Your task to perform on an android device: Open location settings Image 0: 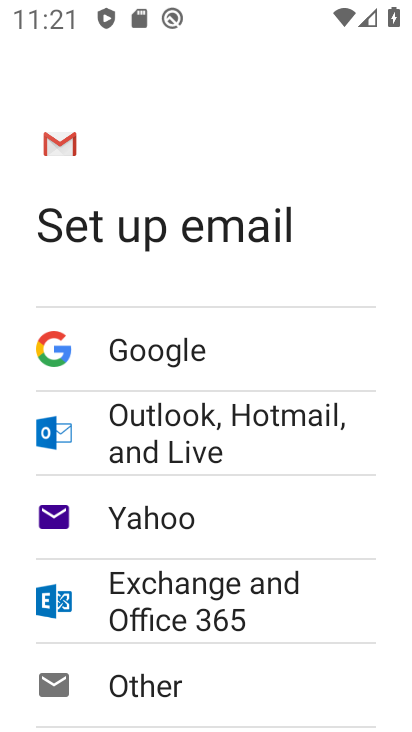
Step 0: press home button
Your task to perform on an android device: Open location settings Image 1: 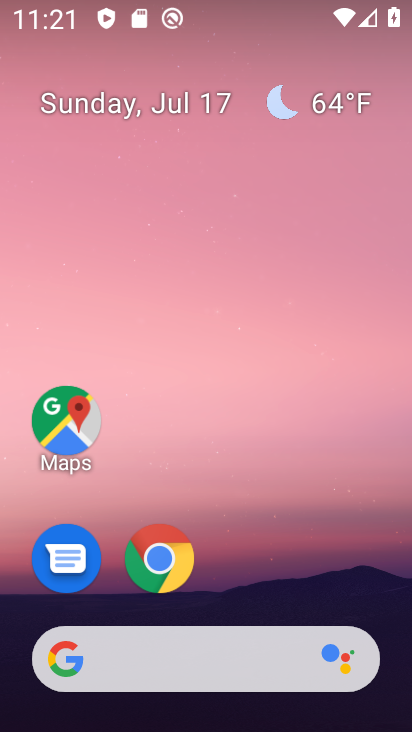
Step 1: drag from (346, 572) to (348, 66)
Your task to perform on an android device: Open location settings Image 2: 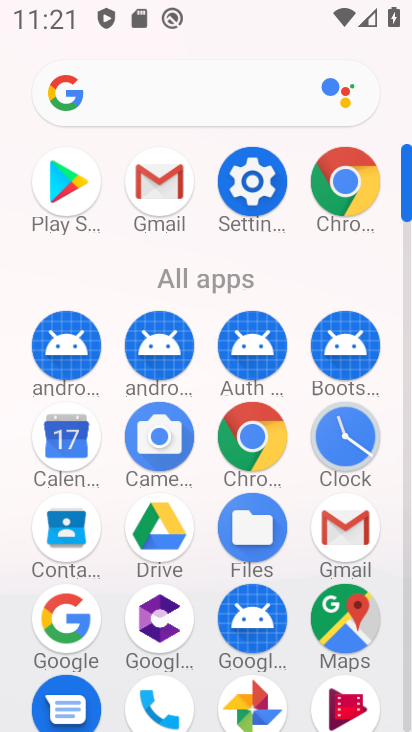
Step 2: click (266, 202)
Your task to perform on an android device: Open location settings Image 3: 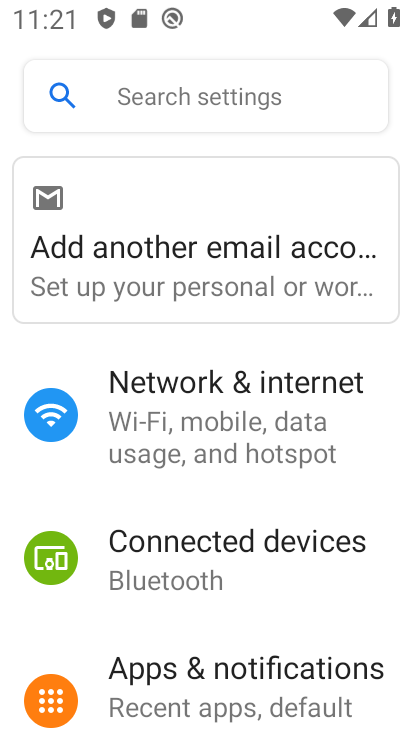
Step 3: drag from (352, 486) to (352, 386)
Your task to perform on an android device: Open location settings Image 4: 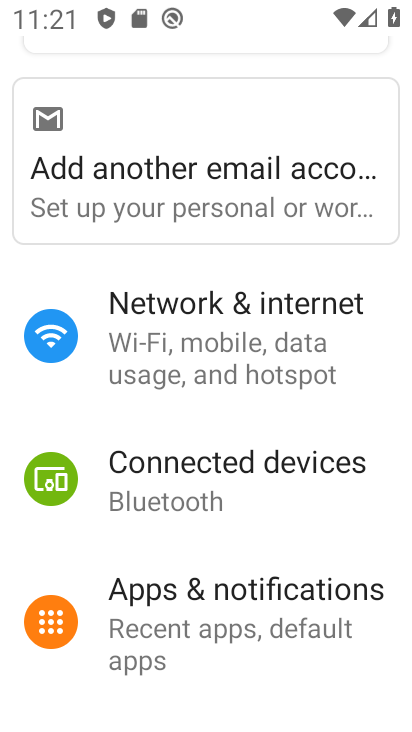
Step 4: drag from (349, 503) to (352, 392)
Your task to perform on an android device: Open location settings Image 5: 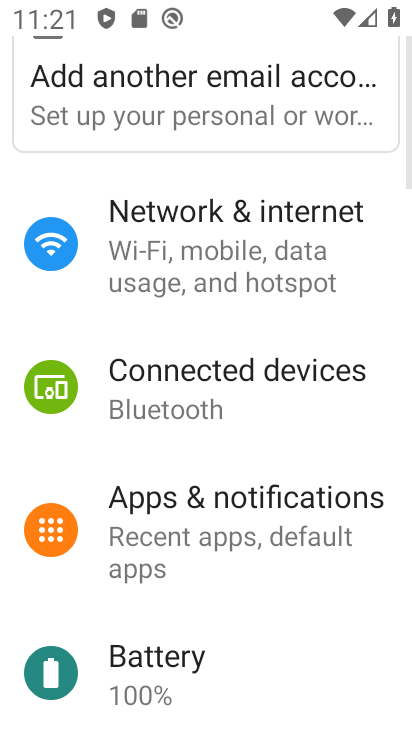
Step 5: drag from (352, 574) to (370, 400)
Your task to perform on an android device: Open location settings Image 6: 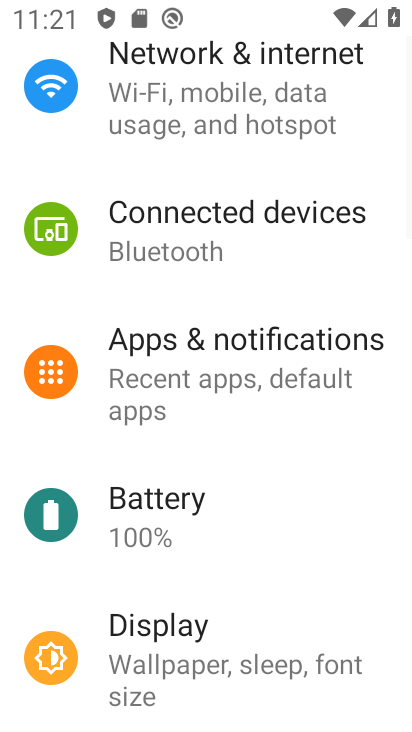
Step 6: drag from (360, 570) to (357, 408)
Your task to perform on an android device: Open location settings Image 7: 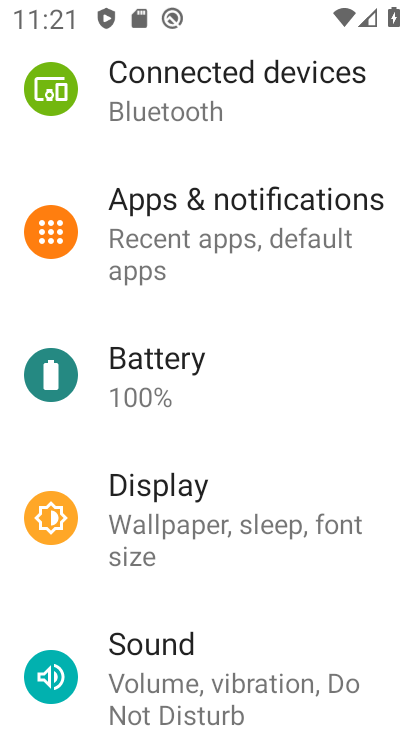
Step 7: drag from (346, 514) to (319, 362)
Your task to perform on an android device: Open location settings Image 8: 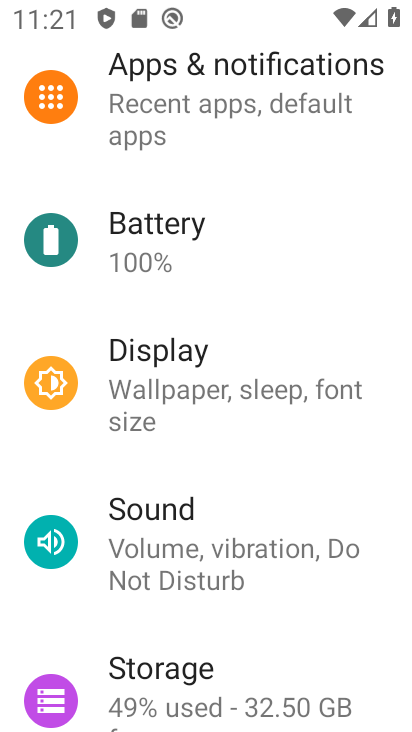
Step 8: drag from (314, 506) to (302, 328)
Your task to perform on an android device: Open location settings Image 9: 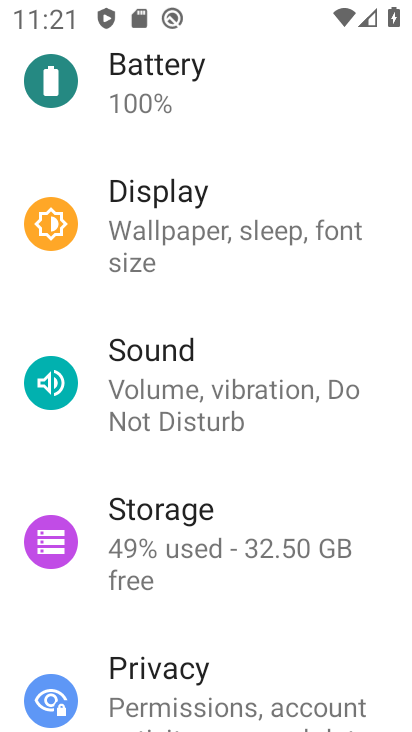
Step 9: drag from (342, 606) to (332, 398)
Your task to perform on an android device: Open location settings Image 10: 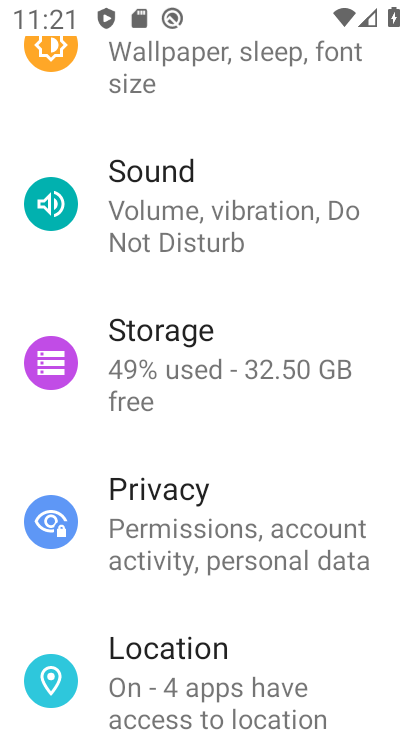
Step 10: drag from (348, 585) to (325, 377)
Your task to perform on an android device: Open location settings Image 11: 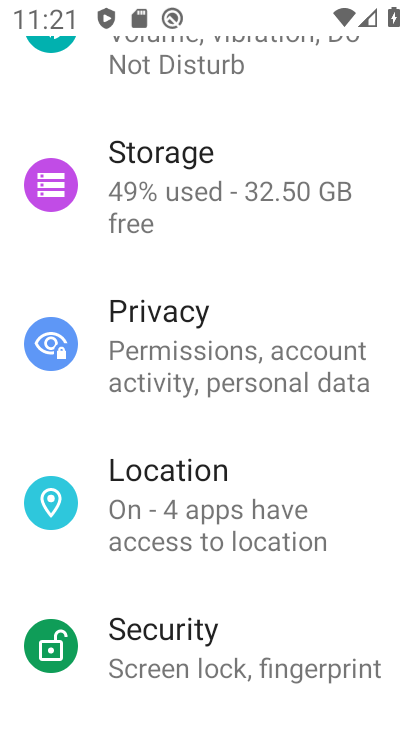
Step 11: drag from (351, 524) to (323, 356)
Your task to perform on an android device: Open location settings Image 12: 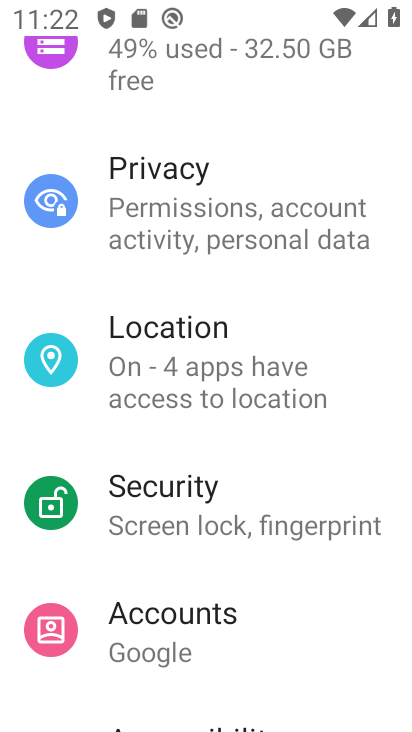
Step 12: drag from (368, 467) to (354, 334)
Your task to perform on an android device: Open location settings Image 13: 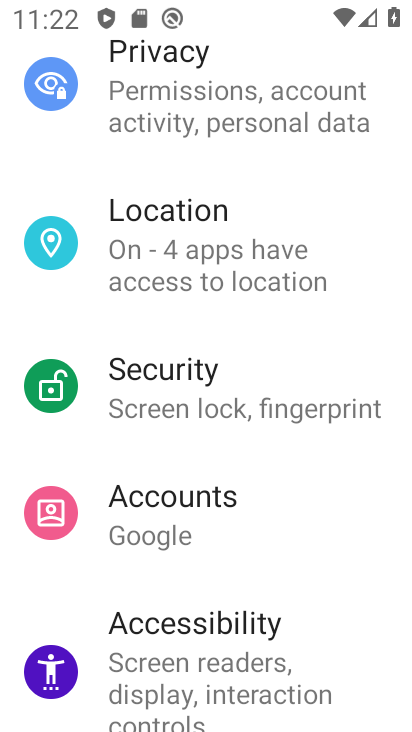
Step 13: click (251, 255)
Your task to perform on an android device: Open location settings Image 14: 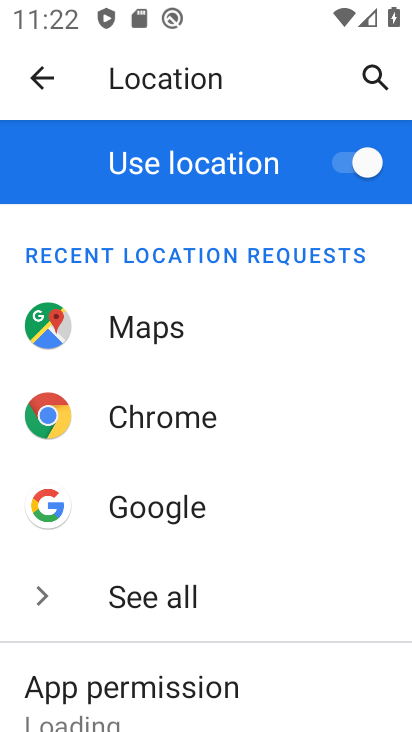
Step 14: task complete